Your task to perform on an android device: open app "Viber Messenger" (install if not already installed) Image 0: 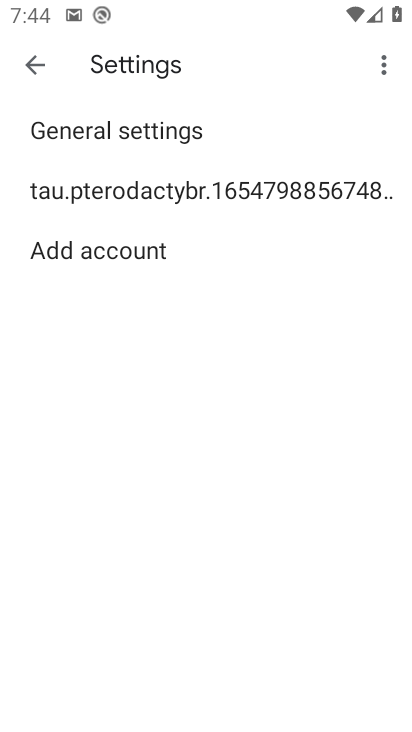
Step 0: press home button
Your task to perform on an android device: open app "Viber Messenger" (install if not already installed) Image 1: 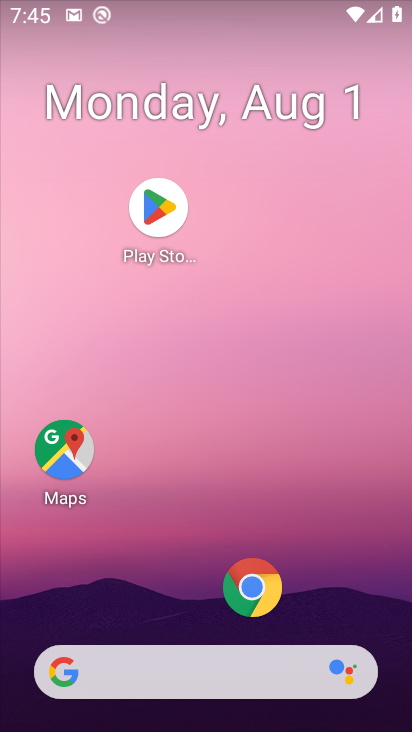
Step 1: click (189, 675)
Your task to perform on an android device: open app "Viber Messenger" (install if not already installed) Image 2: 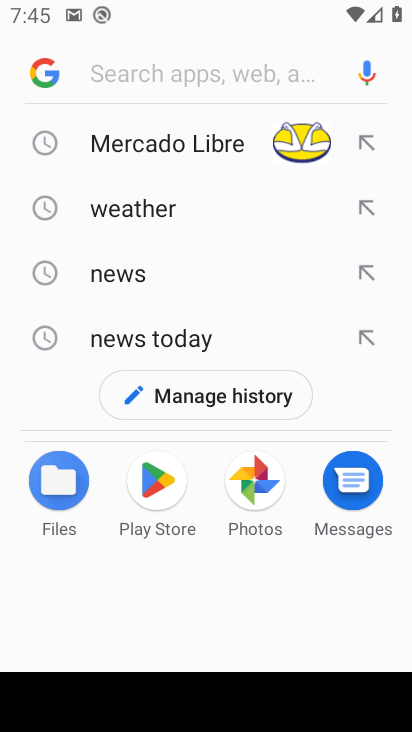
Step 2: type "viber"
Your task to perform on an android device: open app "Viber Messenger" (install if not already installed) Image 3: 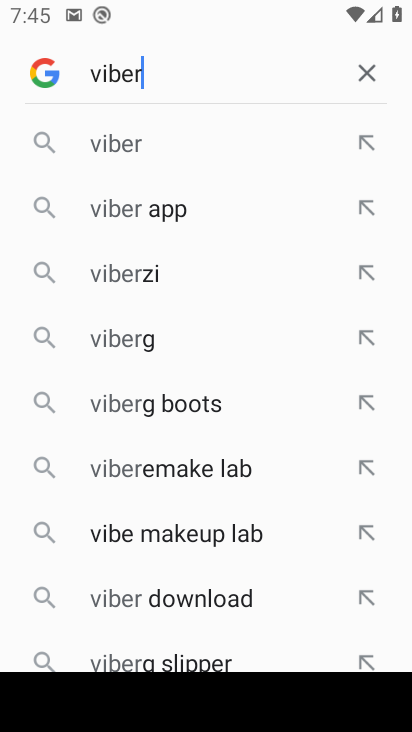
Step 3: click (203, 149)
Your task to perform on an android device: open app "Viber Messenger" (install if not already installed) Image 4: 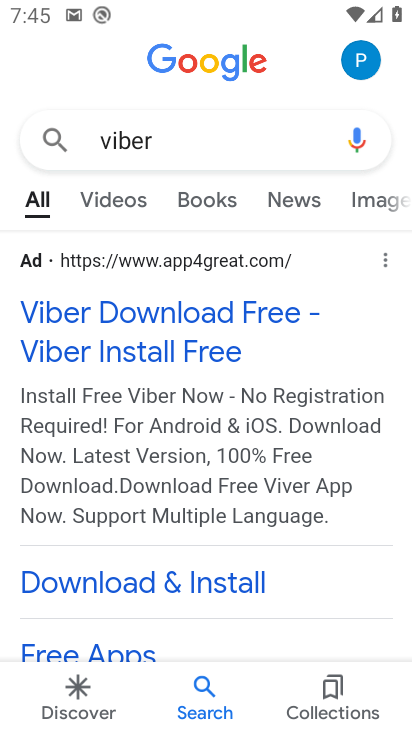
Step 4: drag from (294, 558) to (290, 223)
Your task to perform on an android device: open app "Viber Messenger" (install if not already installed) Image 5: 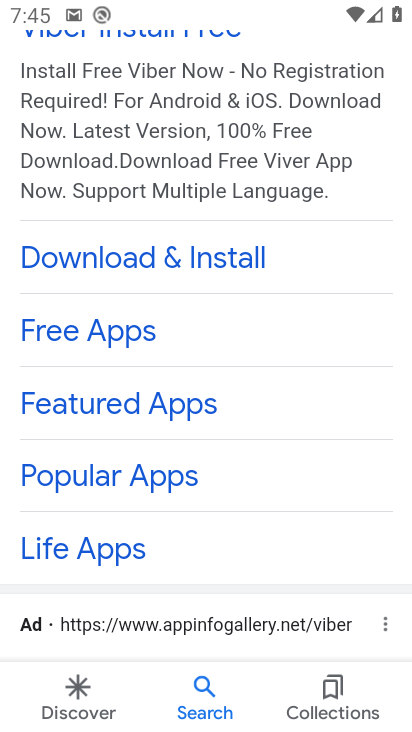
Step 5: drag from (275, 591) to (293, 233)
Your task to perform on an android device: open app "Viber Messenger" (install if not already installed) Image 6: 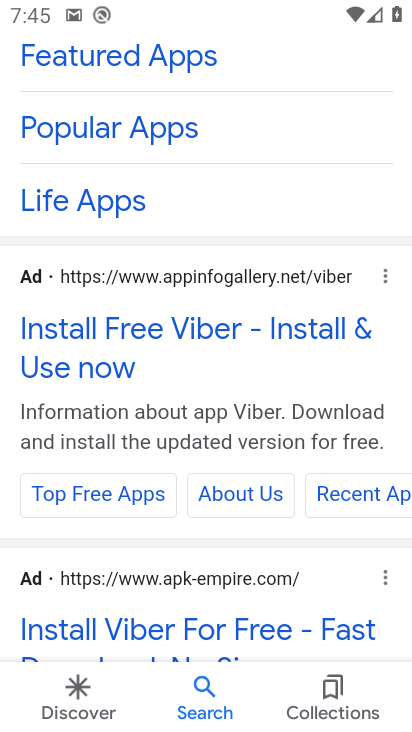
Step 6: drag from (290, 557) to (317, 192)
Your task to perform on an android device: open app "Viber Messenger" (install if not already installed) Image 7: 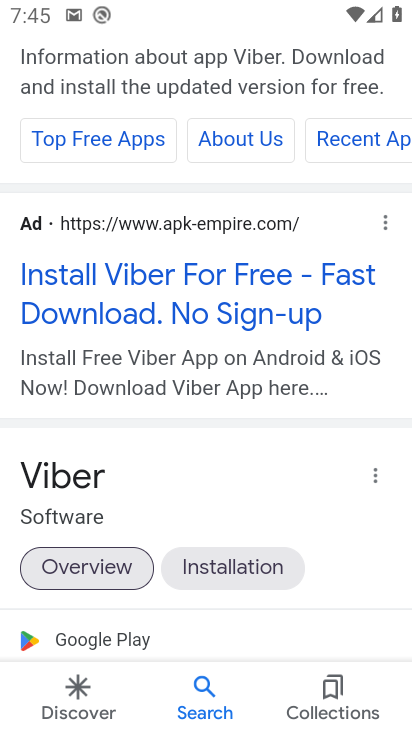
Step 7: drag from (224, 639) to (239, 359)
Your task to perform on an android device: open app "Viber Messenger" (install if not already installed) Image 8: 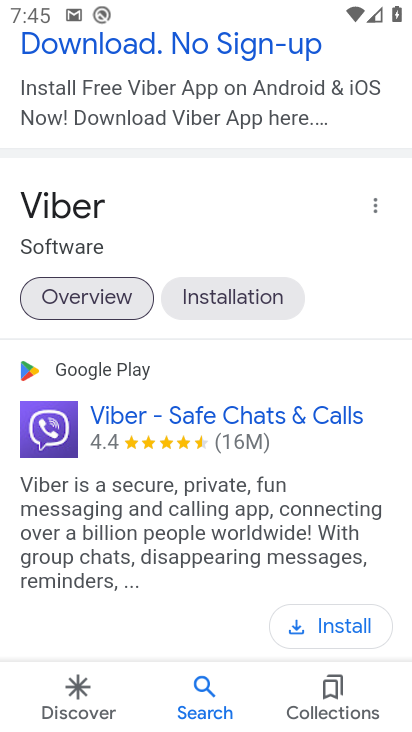
Step 8: click (311, 642)
Your task to perform on an android device: open app "Viber Messenger" (install if not already installed) Image 9: 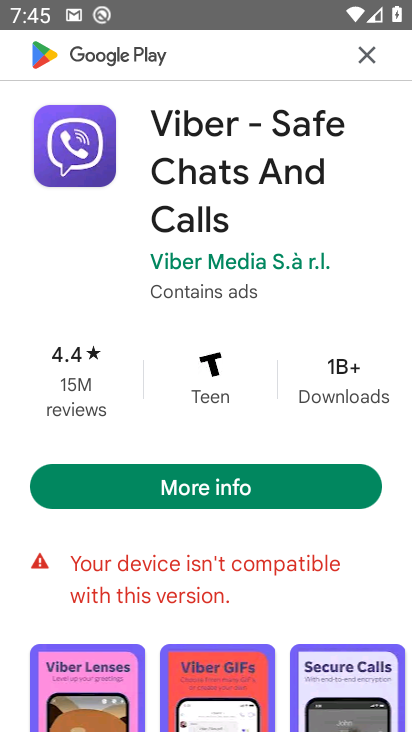
Step 9: task complete